Your task to perform on an android device: install app "Google Translate" Image 0: 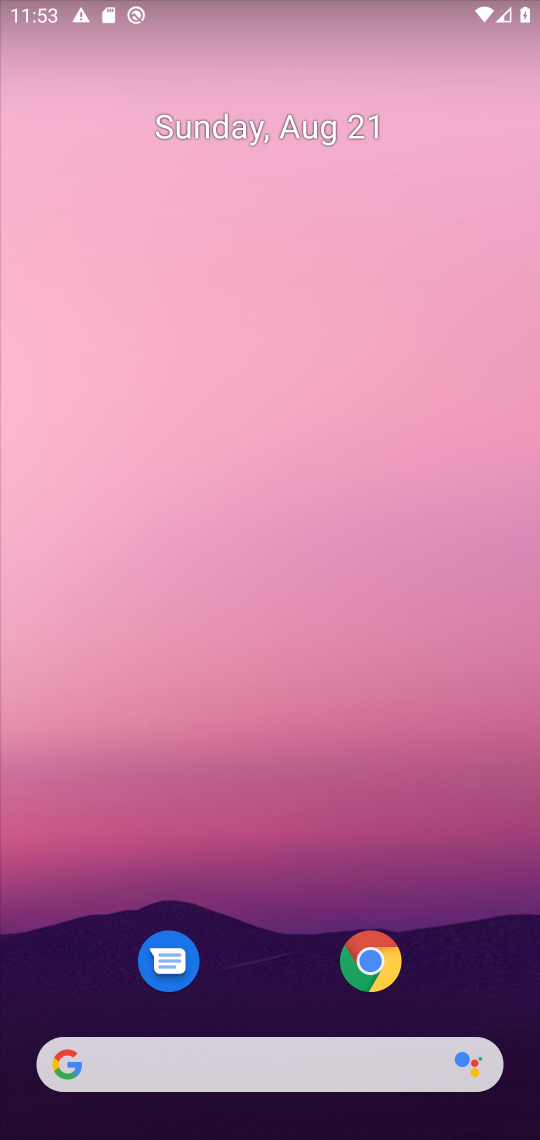
Step 0: drag from (487, 946) to (485, 96)
Your task to perform on an android device: install app "Google Translate" Image 1: 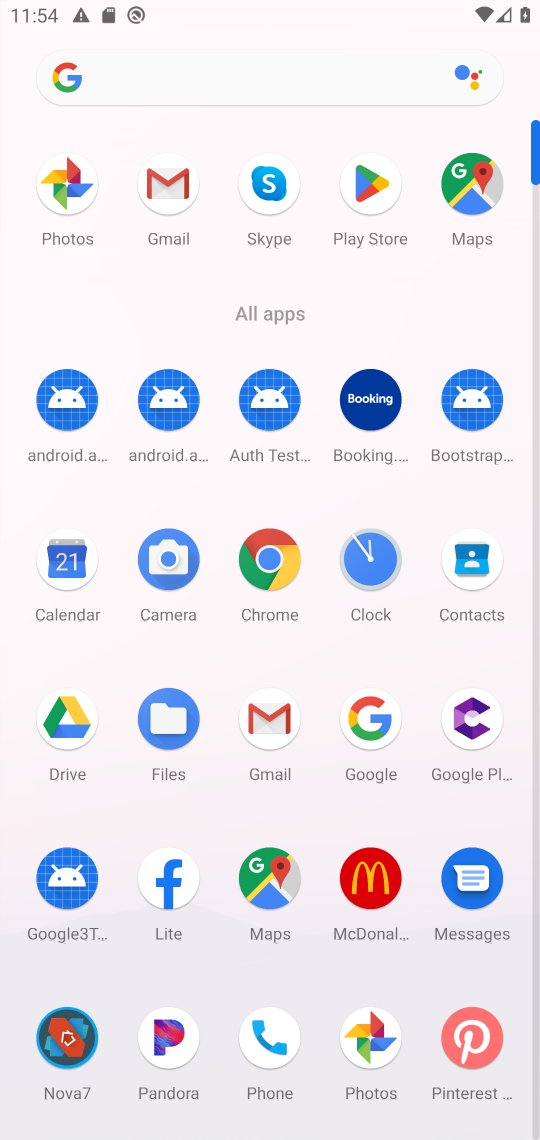
Step 1: click (373, 185)
Your task to perform on an android device: install app "Google Translate" Image 2: 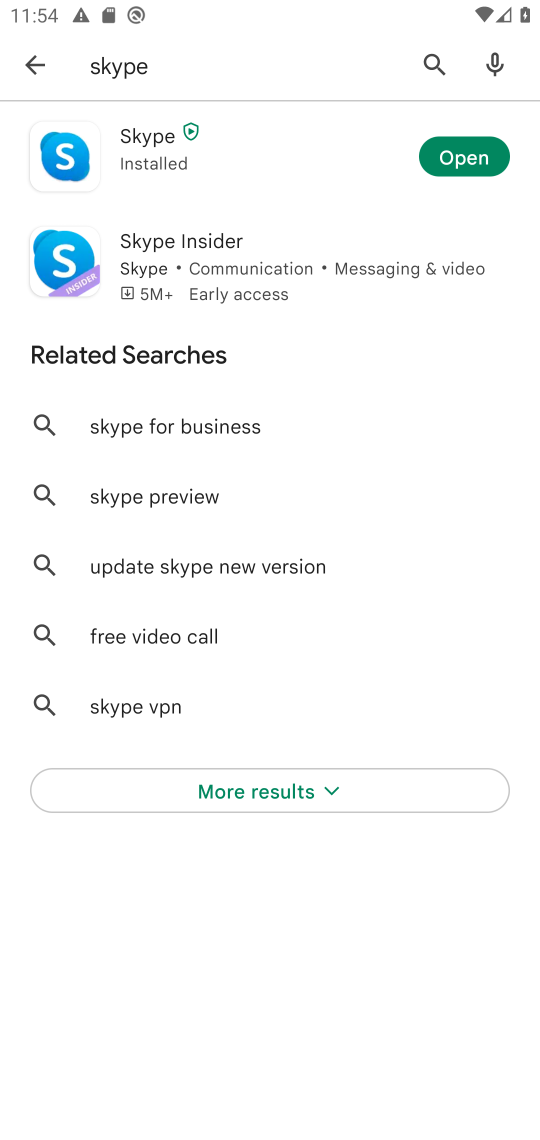
Step 2: press back button
Your task to perform on an android device: install app "Google Translate" Image 3: 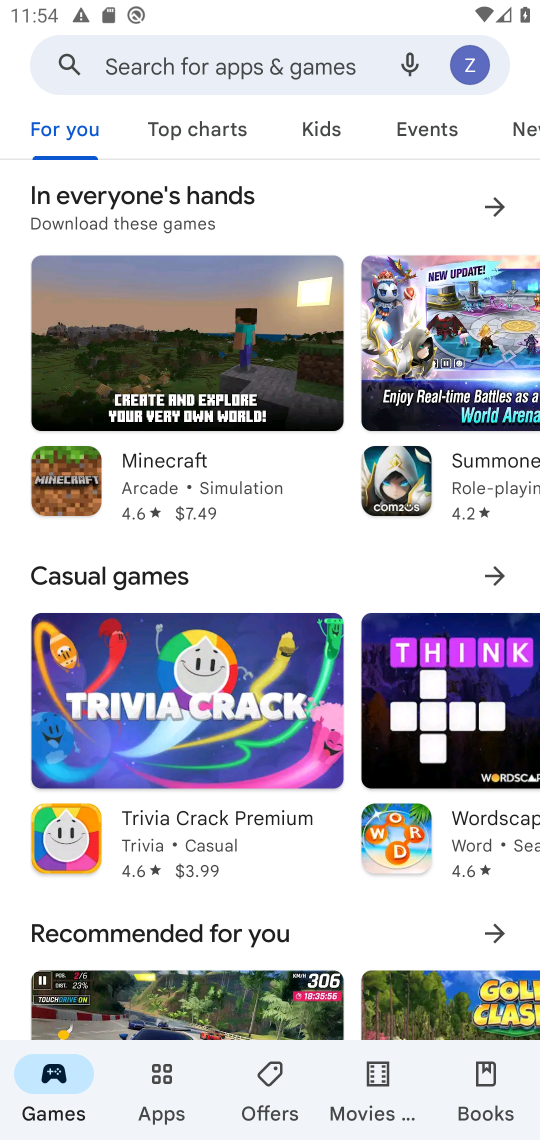
Step 3: click (291, 66)
Your task to perform on an android device: install app "Google Translate" Image 4: 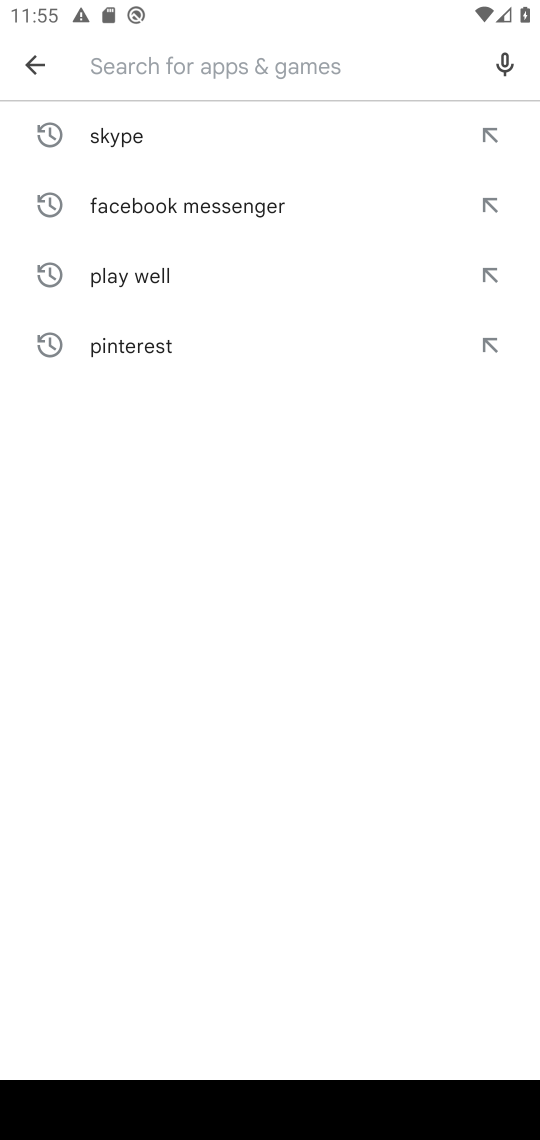
Step 4: press enter
Your task to perform on an android device: install app "Google Translate" Image 5: 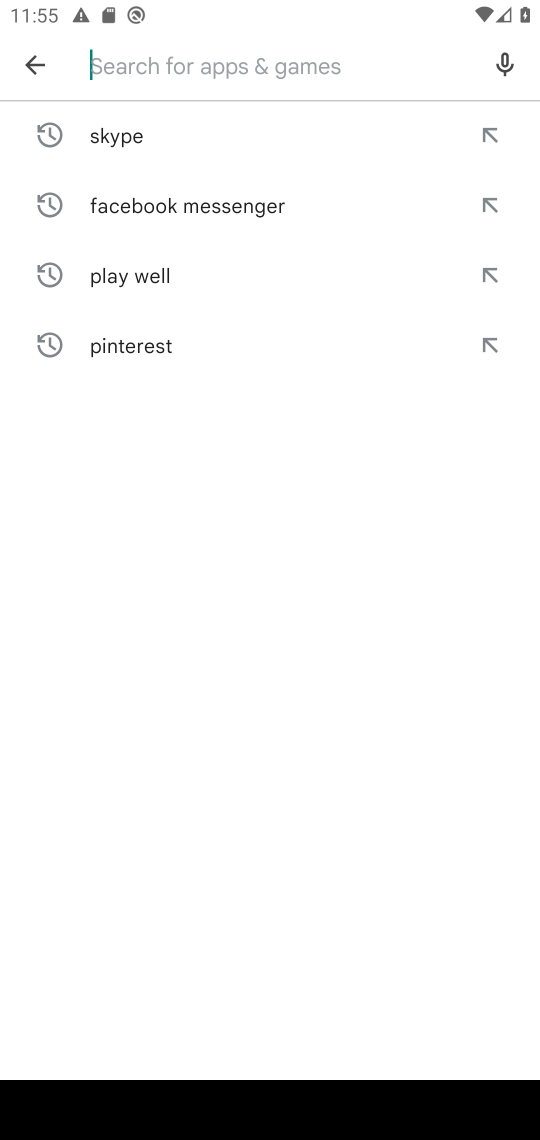
Step 5: type "Google Translate"
Your task to perform on an android device: install app "Google Translate" Image 6: 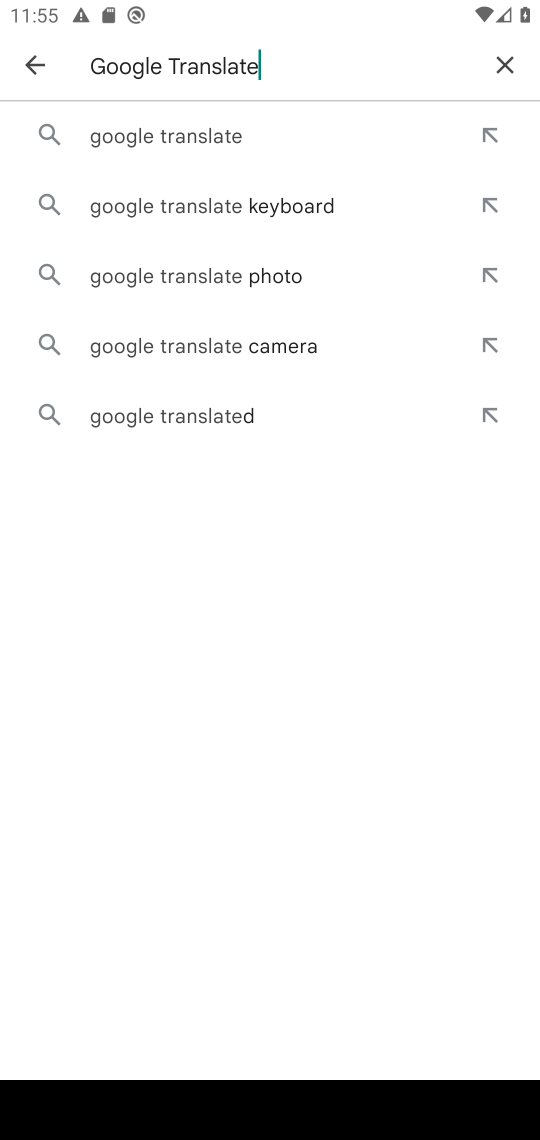
Step 6: click (137, 132)
Your task to perform on an android device: install app "Google Translate" Image 7: 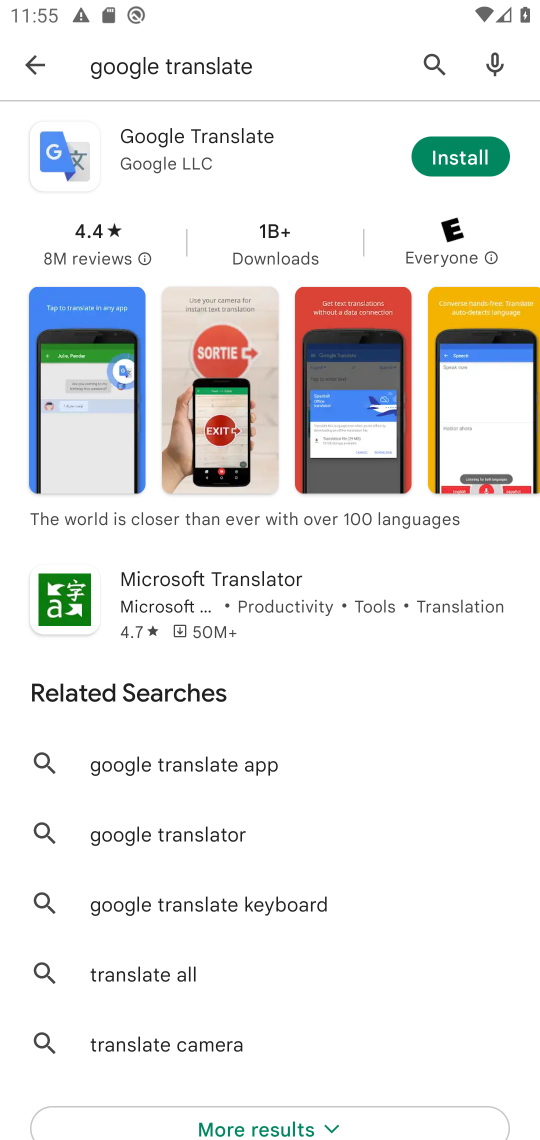
Step 7: click (466, 160)
Your task to perform on an android device: install app "Google Translate" Image 8: 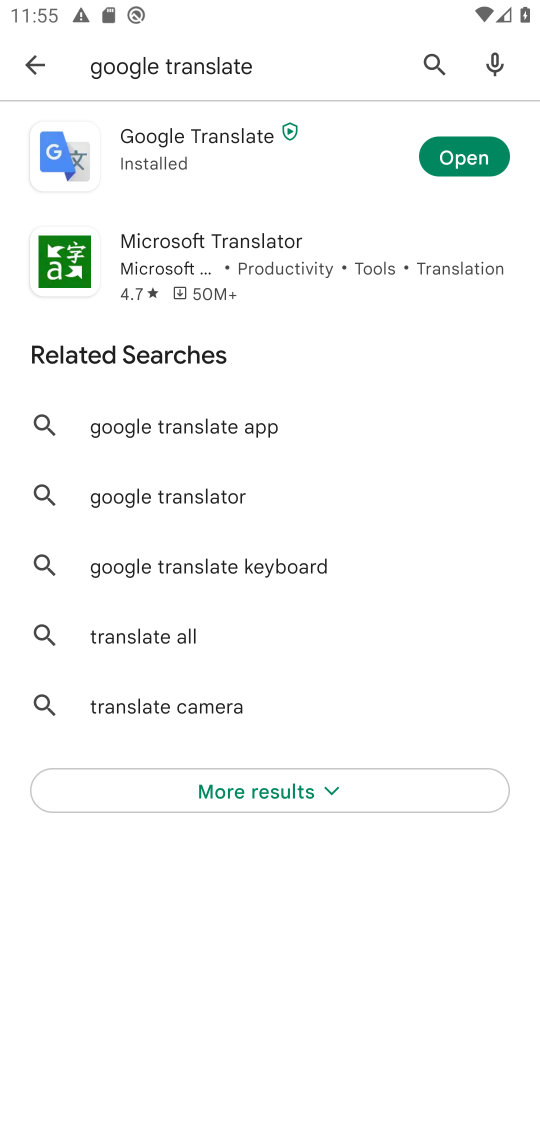
Step 8: task complete